Your task to perform on an android device: toggle show notifications on the lock screen Image 0: 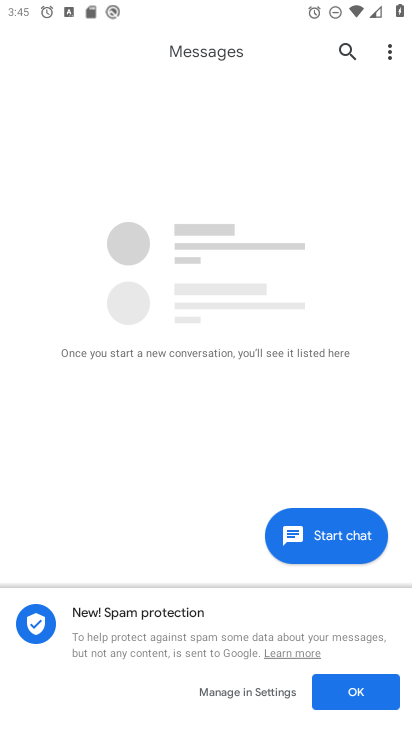
Step 0: press home button
Your task to perform on an android device: toggle show notifications on the lock screen Image 1: 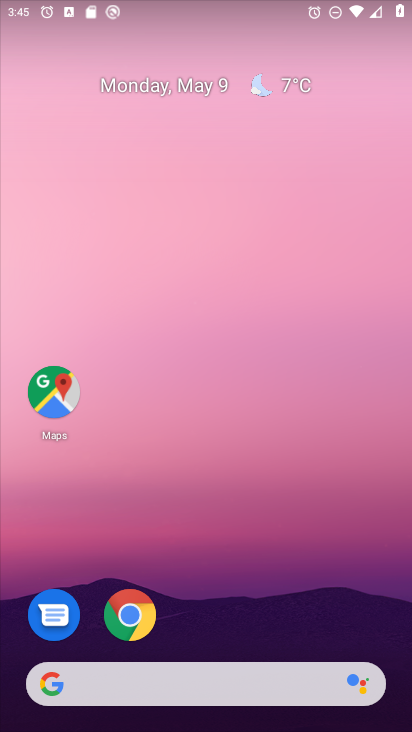
Step 1: drag from (346, 531) to (282, 154)
Your task to perform on an android device: toggle show notifications on the lock screen Image 2: 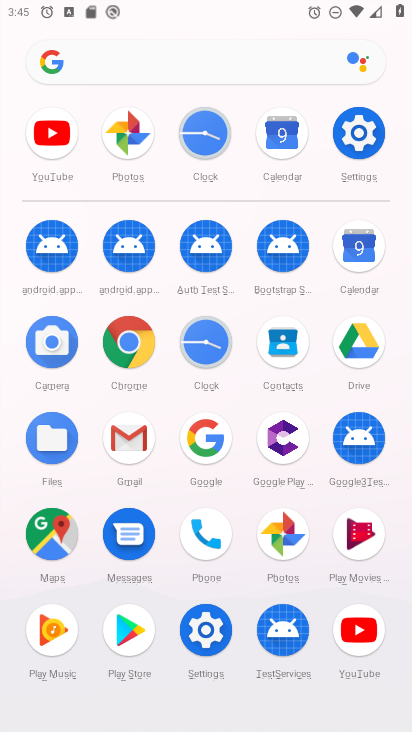
Step 2: drag from (360, 618) to (328, 186)
Your task to perform on an android device: toggle show notifications on the lock screen Image 3: 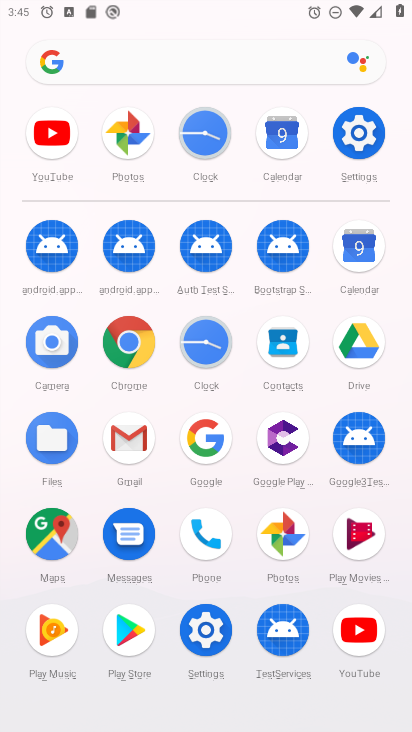
Step 3: click (204, 633)
Your task to perform on an android device: toggle show notifications on the lock screen Image 4: 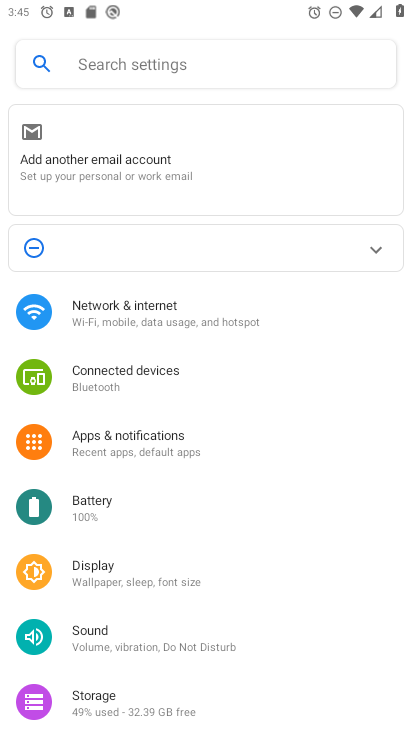
Step 4: click (104, 435)
Your task to perform on an android device: toggle show notifications on the lock screen Image 5: 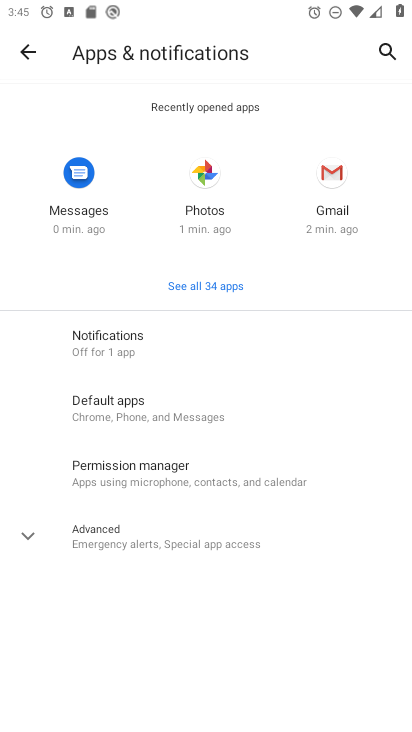
Step 5: click (107, 345)
Your task to perform on an android device: toggle show notifications on the lock screen Image 6: 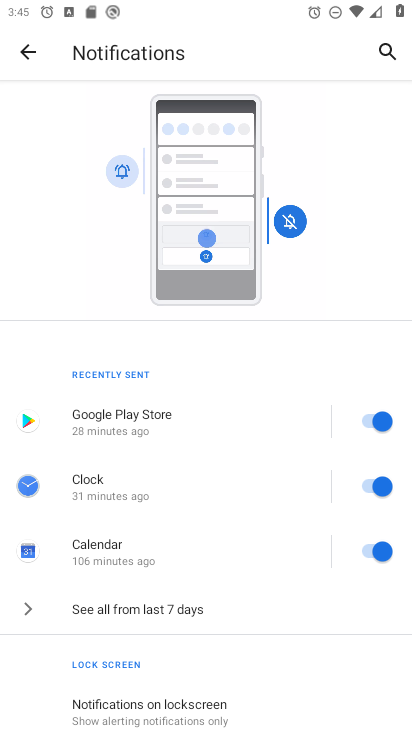
Step 6: drag from (280, 678) to (273, 178)
Your task to perform on an android device: toggle show notifications on the lock screen Image 7: 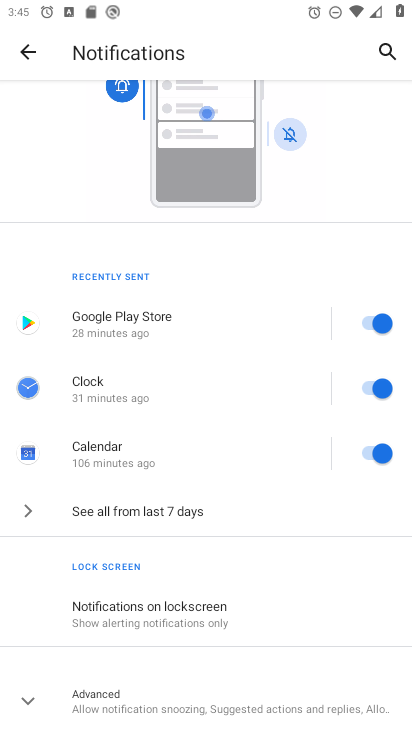
Step 7: click (137, 589)
Your task to perform on an android device: toggle show notifications on the lock screen Image 8: 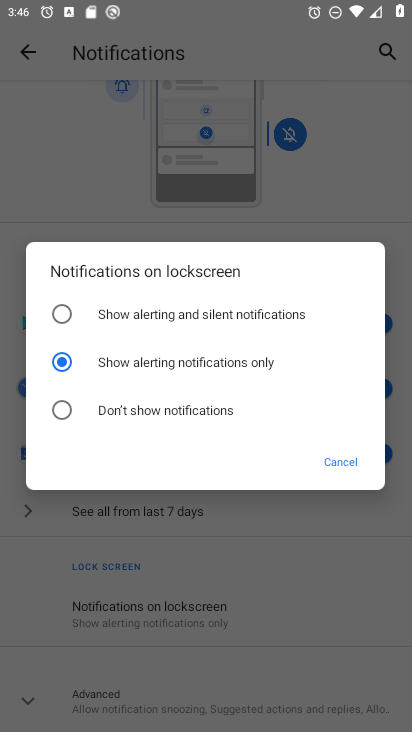
Step 8: click (62, 312)
Your task to perform on an android device: toggle show notifications on the lock screen Image 9: 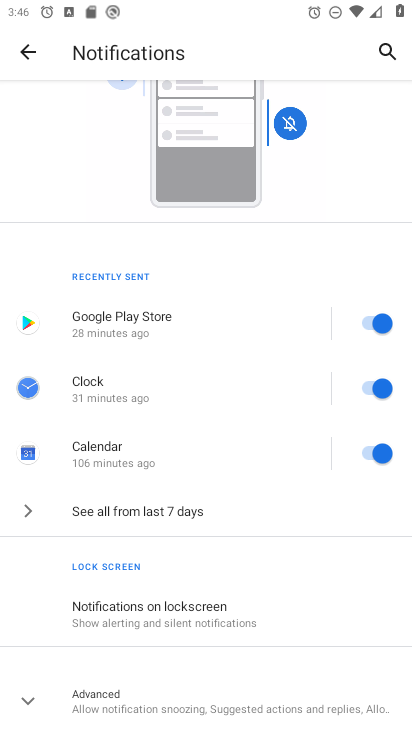
Step 9: task complete